Your task to perform on an android device: Open the web browser Image 0: 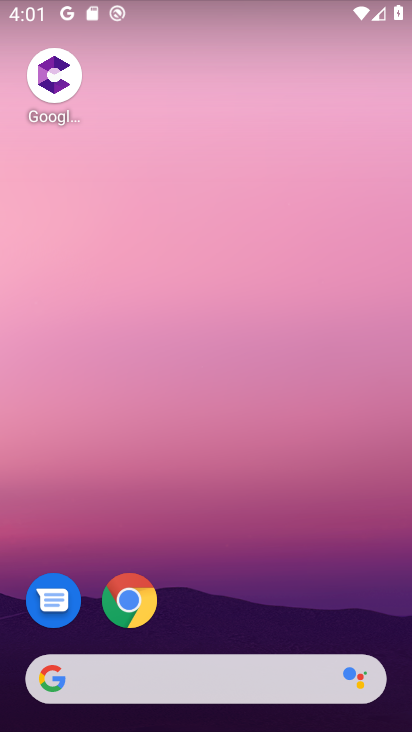
Step 0: click (127, 598)
Your task to perform on an android device: Open the web browser Image 1: 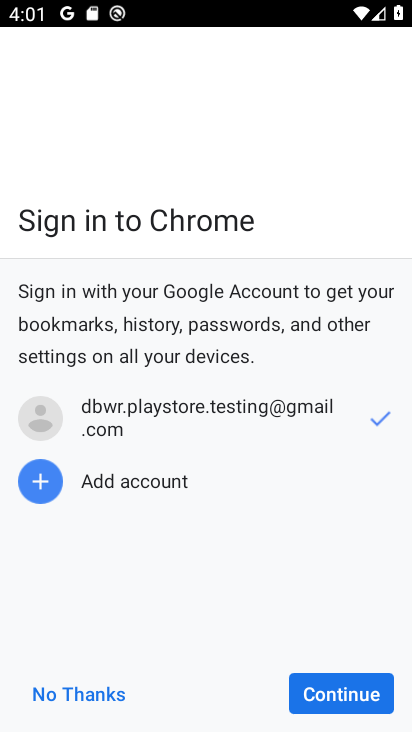
Step 1: click (350, 692)
Your task to perform on an android device: Open the web browser Image 2: 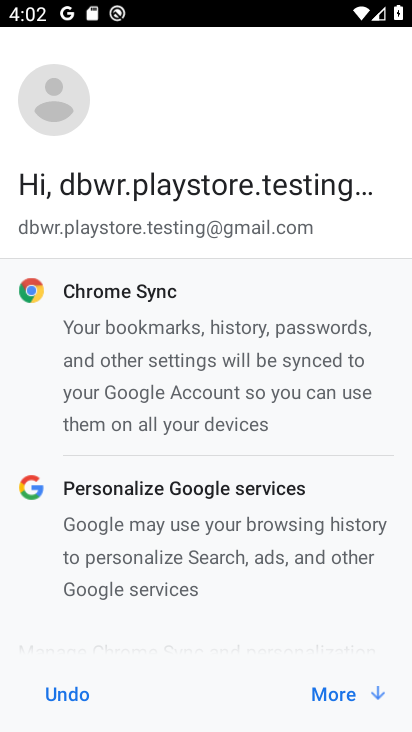
Step 2: click (362, 701)
Your task to perform on an android device: Open the web browser Image 3: 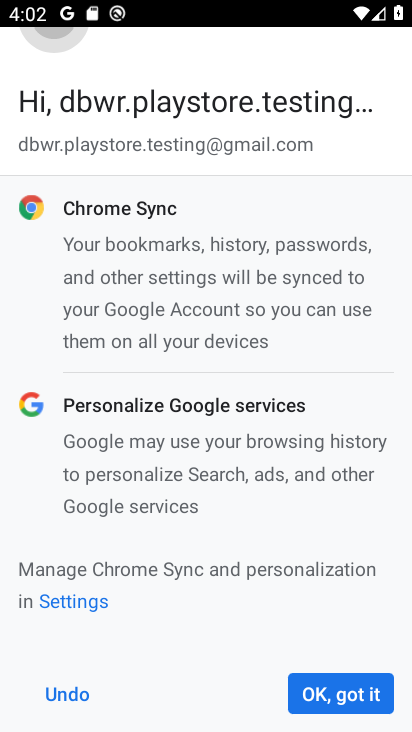
Step 3: click (362, 701)
Your task to perform on an android device: Open the web browser Image 4: 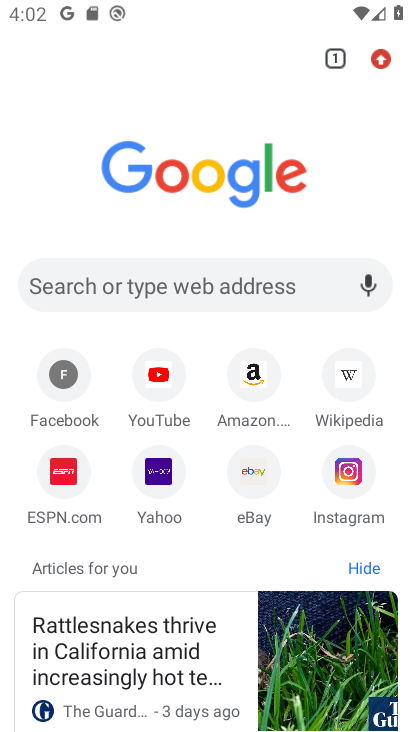
Step 4: task complete